Your task to perform on an android device: Open privacy settings Image 0: 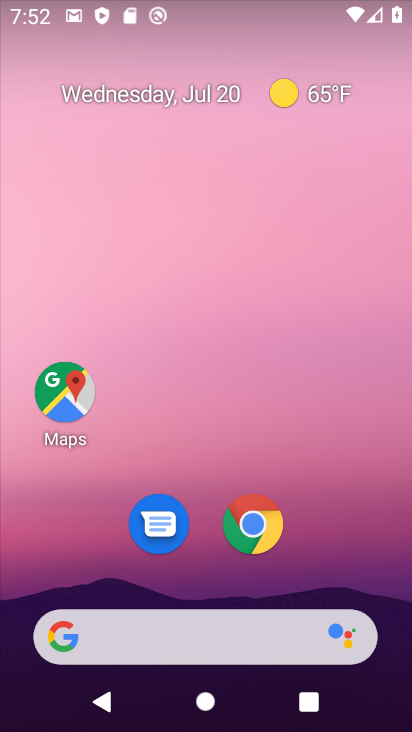
Step 0: drag from (345, 532) to (286, 1)
Your task to perform on an android device: Open privacy settings Image 1: 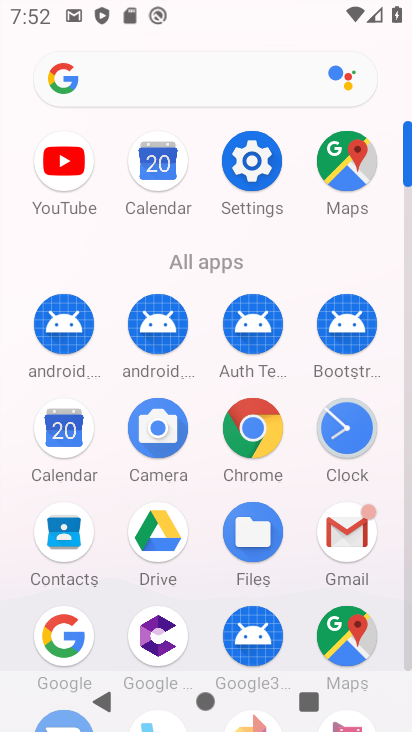
Step 1: click (252, 159)
Your task to perform on an android device: Open privacy settings Image 2: 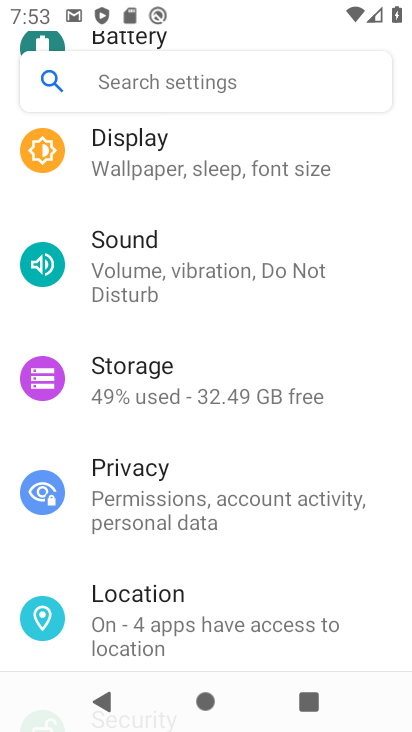
Step 2: click (158, 508)
Your task to perform on an android device: Open privacy settings Image 3: 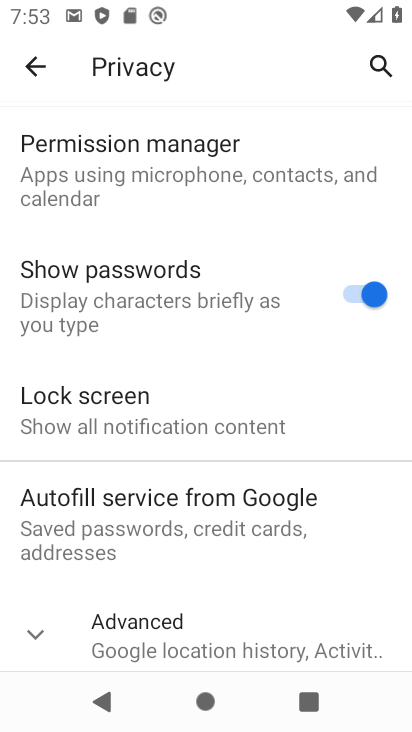
Step 3: task complete